Your task to perform on an android device: make emails show in primary in the gmail app Image 0: 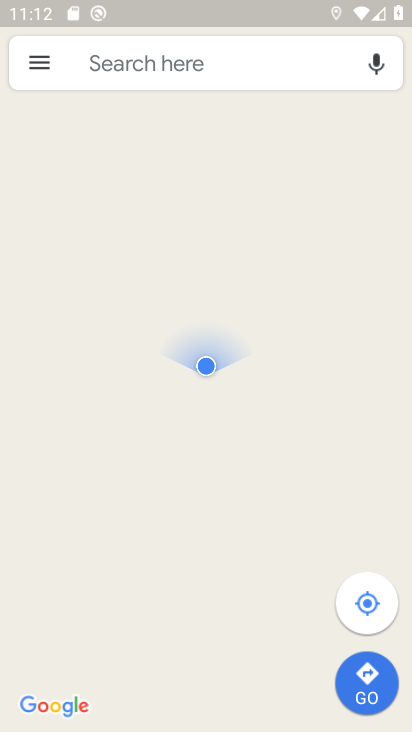
Step 0: press home button
Your task to perform on an android device: make emails show in primary in the gmail app Image 1: 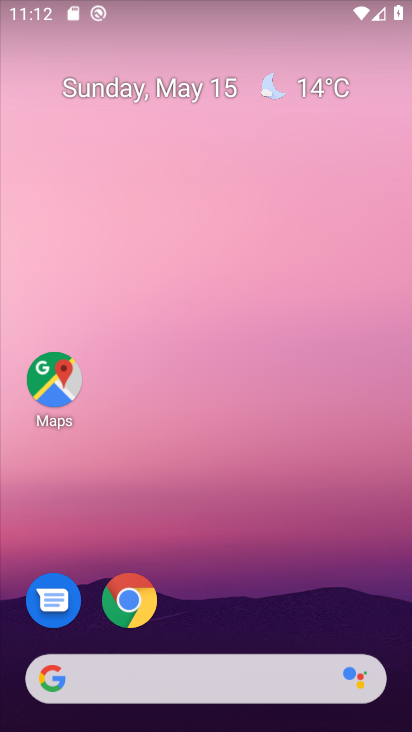
Step 1: drag from (389, 641) to (343, 144)
Your task to perform on an android device: make emails show in primary in the gmail app Image 2: 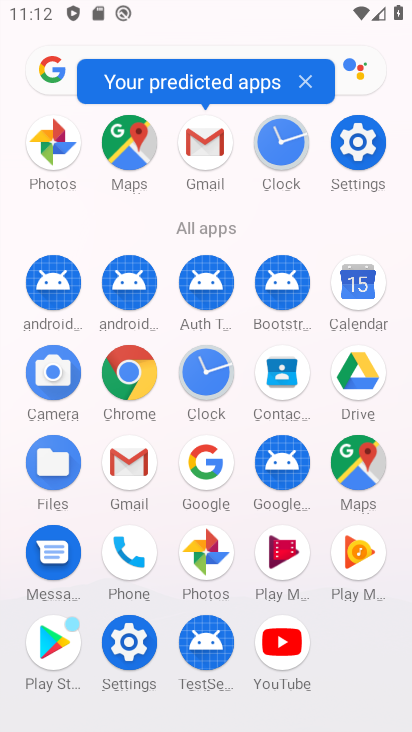
Step 2: click (128, 461)
Your task to perform on an android device: make emails show in primary in the gmail app Image 3: 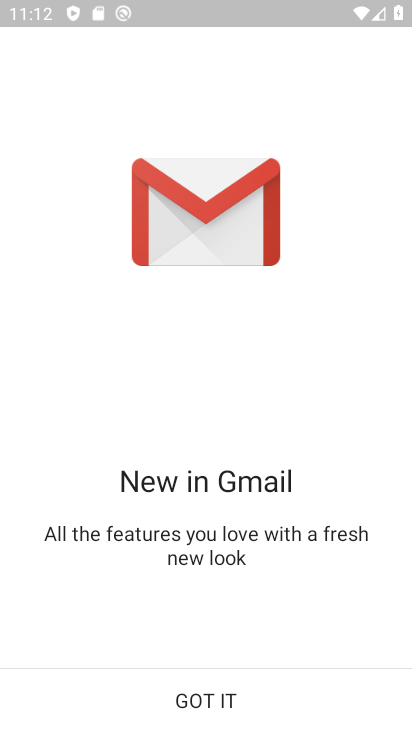
Step 3: click (202, 701)
Your task to perform on an android device: make emails show in primary in the gmail app Image 4: 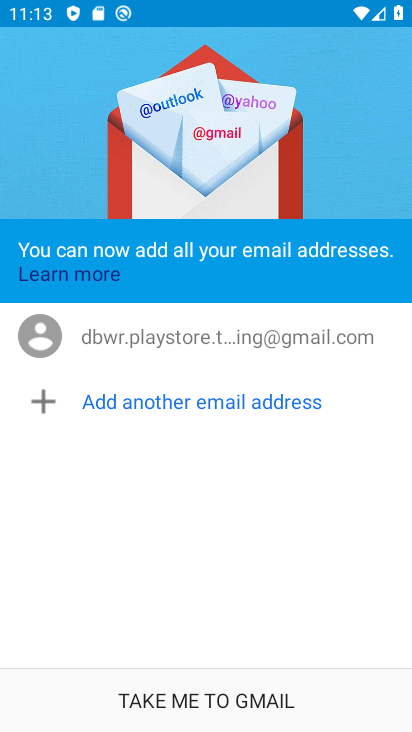
Step 4: click (202, 701)
Your task to perform on an android device: make emails show in primary in the gmail app Image 5: 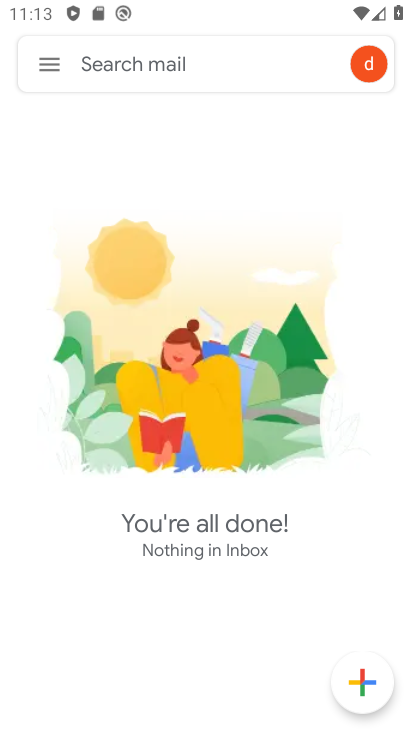
Step 5: click (43, 66)
Your task to perform on an android device: make emails show in primary in the gmail app Image 6: 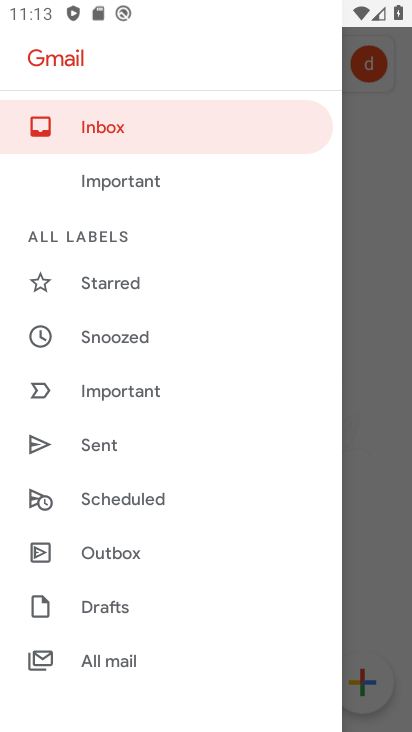
Step 6: drag from (251, 582) to (203, 202)
Your task to perform on an android device: make emails show in primary in the gmail app Image 7: 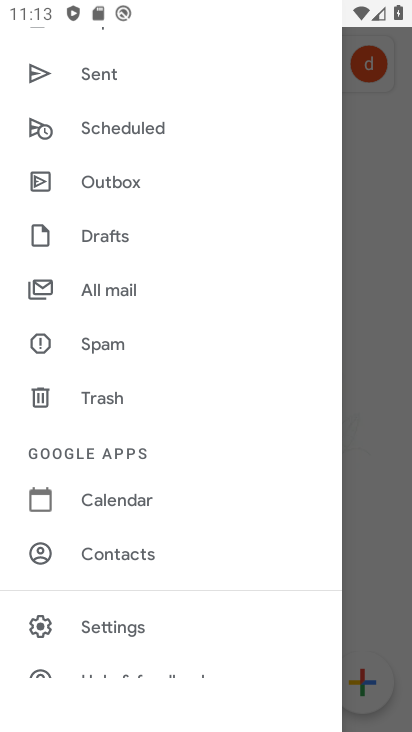
Step 7: click (101, 622)
Your task to perform on an android device: make emails show in primary in the gmail app Image 8: 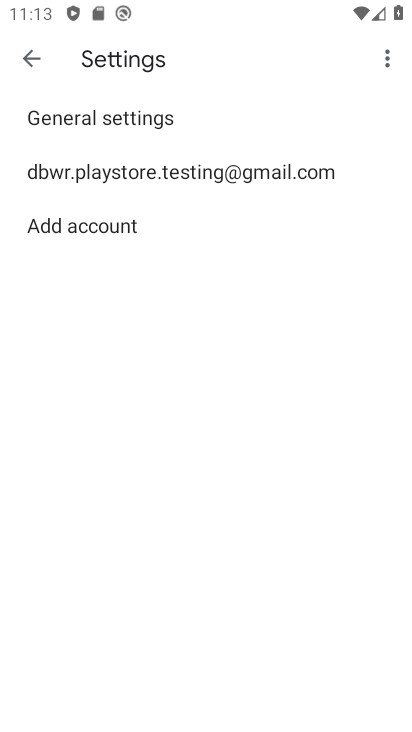
Step 8: click (119, 163)
Your task to perform on an android device: make emails show in primary in the gmail app Image 9: 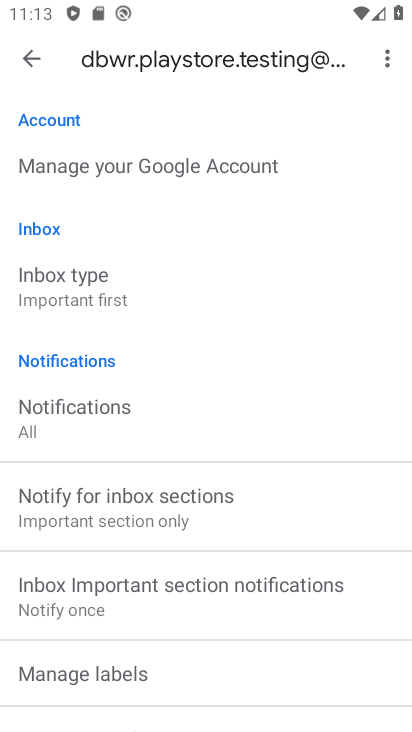
Step 9: click (61, 278)
Your task to perform on an android device: make emails show in primary in the gmail app Image 10: 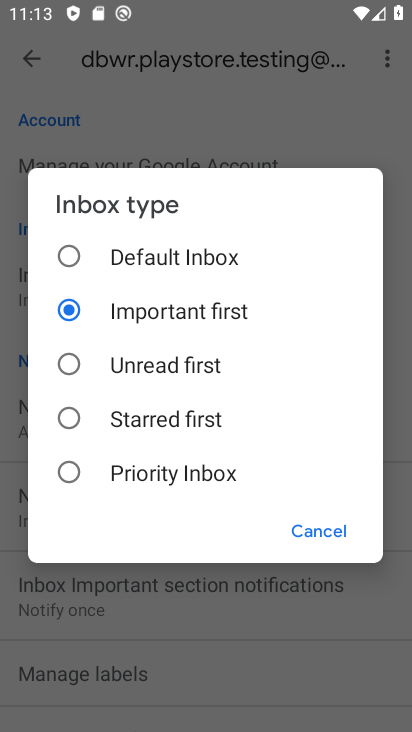
Step 10: click (72, 247)
Your task to perform on an android device: make emails show in primary in the gmail app Image 11: 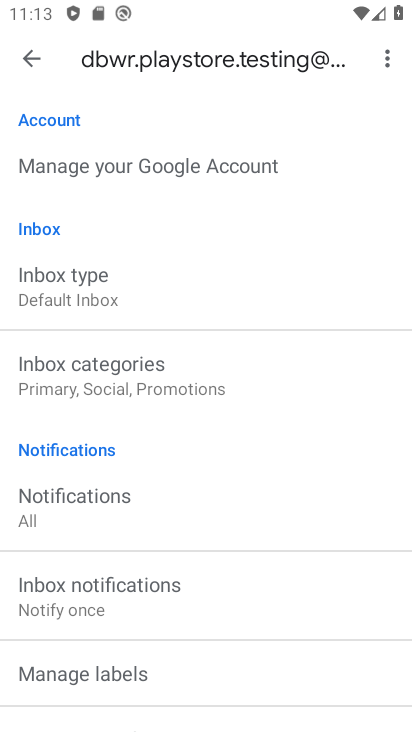
Step 11: click (91, 381)
Your task to perform on an android device: make emails show in primary in the gmail app Image 12: 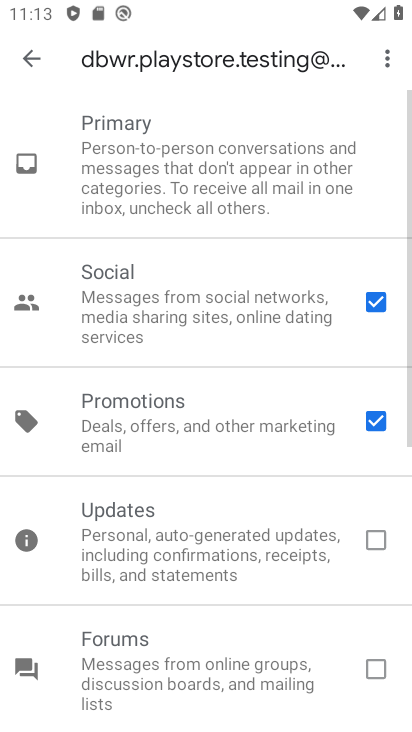
Step 12: click (366, 425)
Your task to perform on an android device: make emails show in primary in the gmail app Image 13: 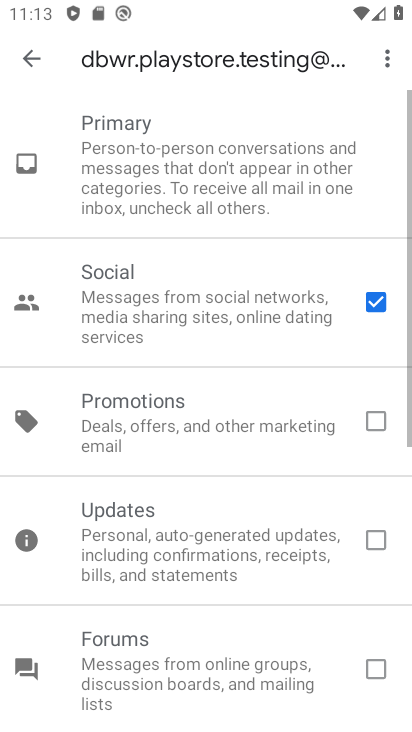
Step 13: click (369, 295)
Your task to perform on an android device: make emails show in primary in the gmail app Image 14: 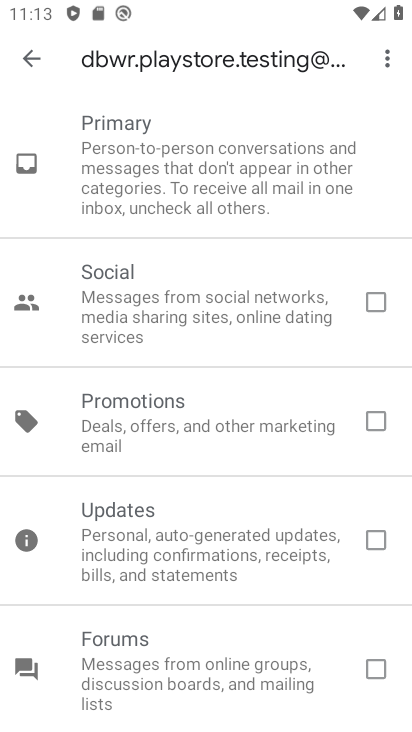
Step 14: task complete